Your task to perform on an android device: Open maps Image 0: 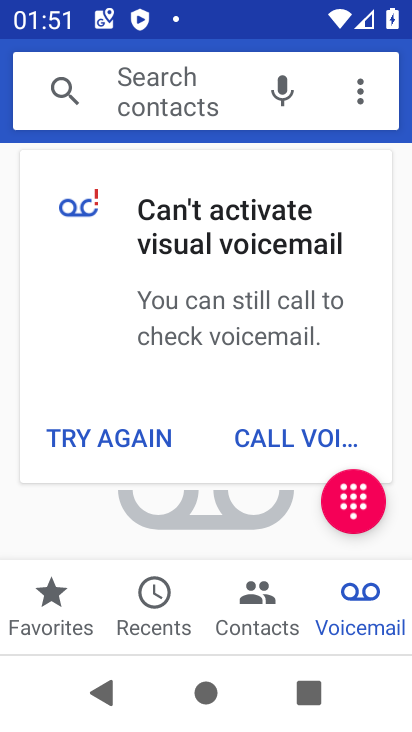
Step 0: press home button
Your task to perform on an android device: Open maps Image 1: 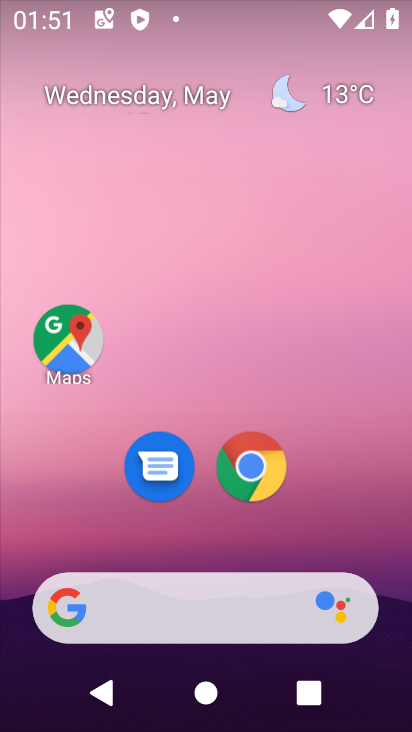
Step 1: click (63, 370)
Your task to perform on an android device: Open maps Image 2: 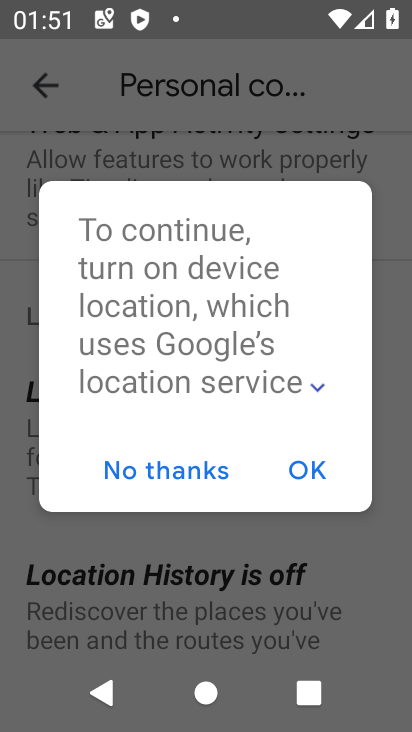
Step 2: task complete